Your task to perform on an android device: delete location history Image 0: 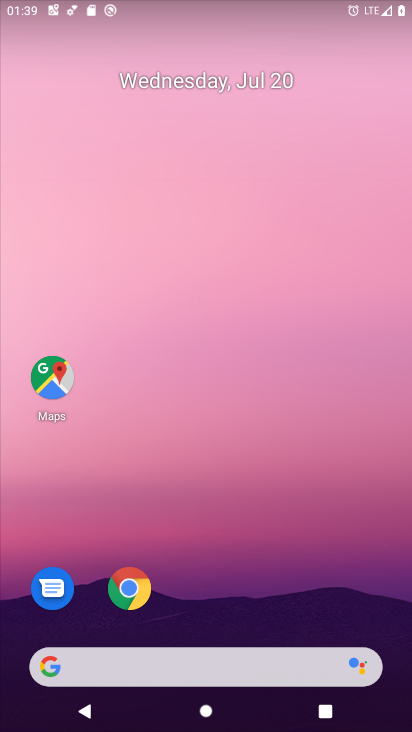
Step 0: drag from (286, 564) to (314, 205)
Your task to perform on an android device: delete location history Image 1: 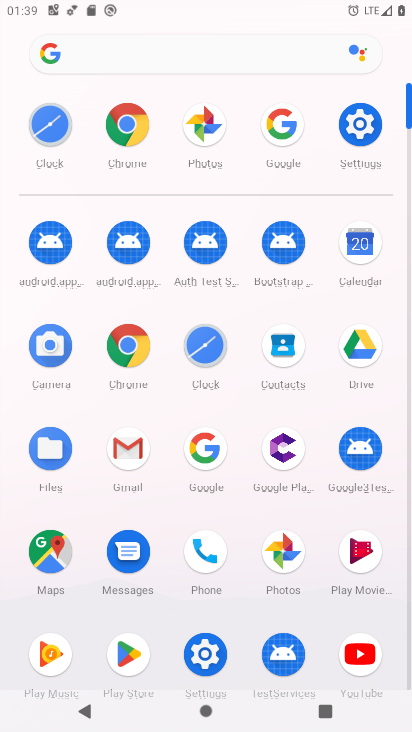
Step 1: click (45, 560)
Your task to perform on an android device: delete location history Image 2: 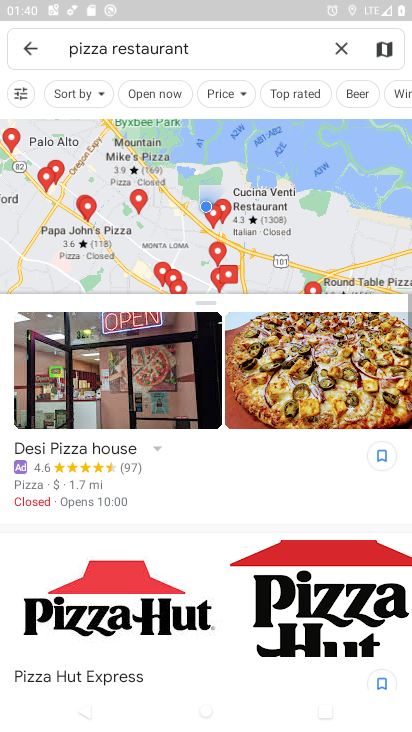
Step 2: click (332, 41)
Your task to perform on an android device: delete location history Image 3: 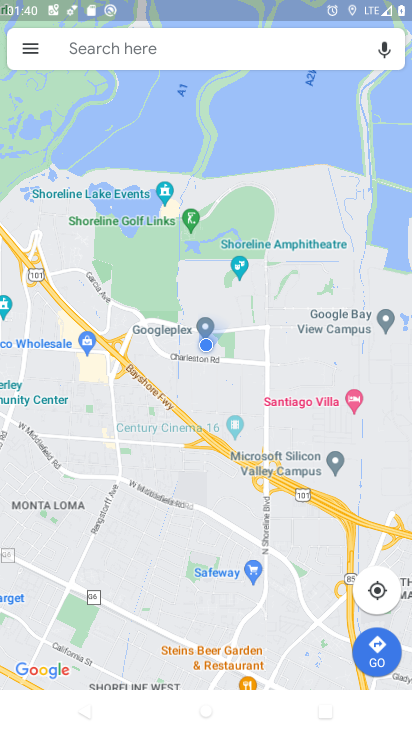
Step 3: click (22, 54)
Your task to perform on an android device: delete location history Image 4: 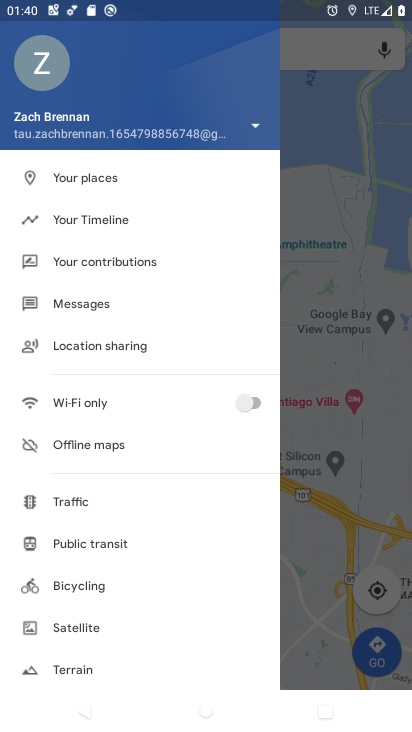
Step 4: drag from (180, 607) to (184, 295)
Your task to perform on an android device: delete location history Image 5: 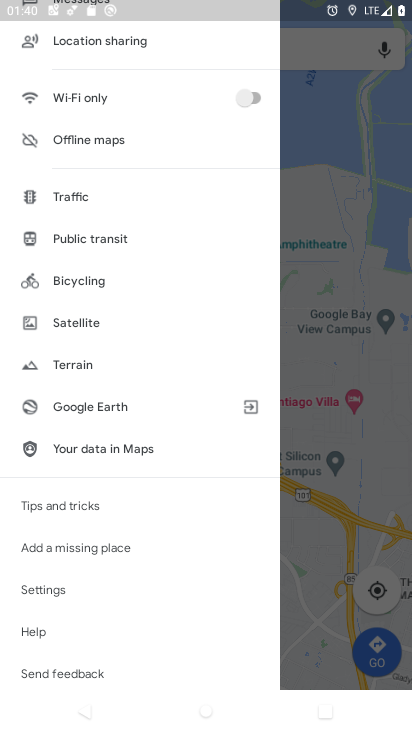
Step 5: drag from (101, 100) to (98, 578)
Your task to perform on an android device: delete location history Image 6: 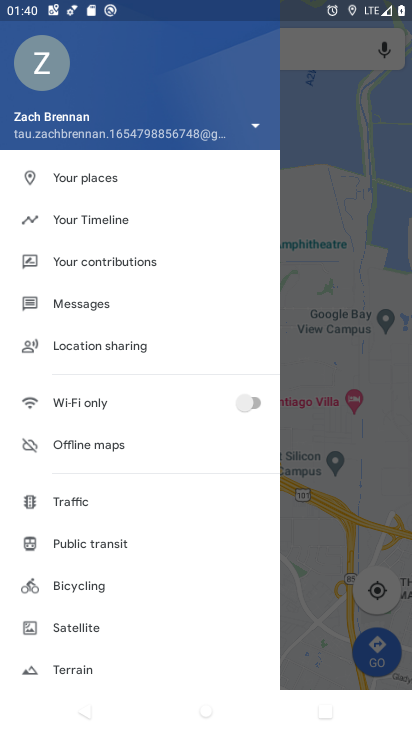
Step 6: click (76, 220)
Your task to perform on an android device: delete location history Image 7: 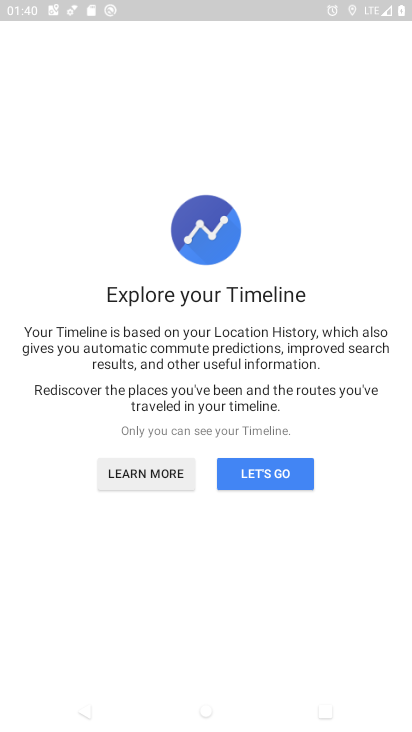
Step 7: click (267, 476)
Your task to perform on an android device: delete location history Image 8: 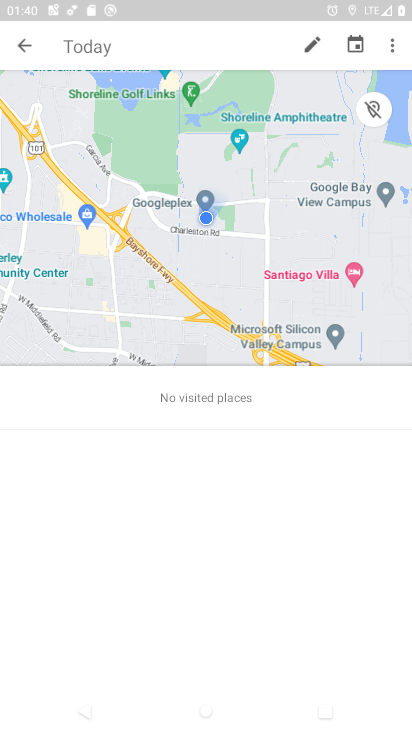
Step 8: click (391, 34)
Your task to perform on an android device: delete location history Image 9: 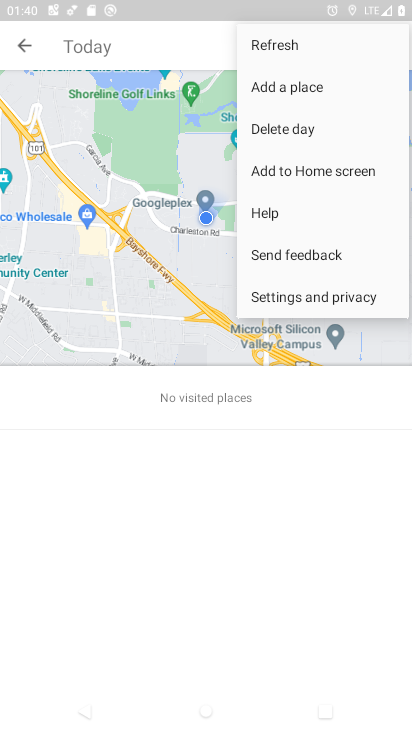
Step 9: click (317, 302)
Your task to perform on an android device: delete location history Image 10: 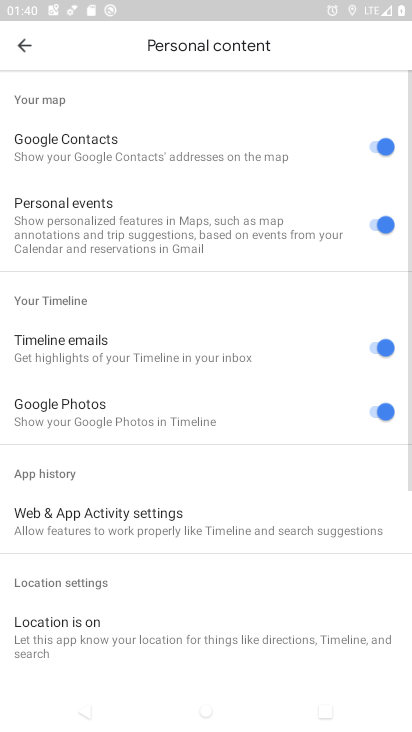
Step 10: drag from (163, 503) to (182, 227)
Your task to perform on an android device: delete location history Image 11: 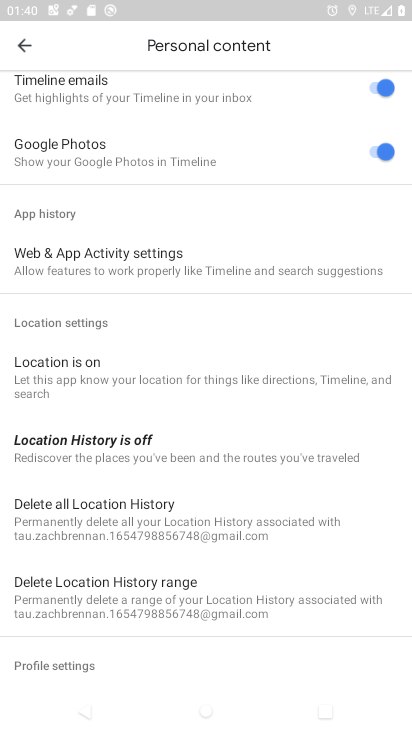
Step 11: click (174, 511)
Your task to perform on an android device: delete location history Image 12: 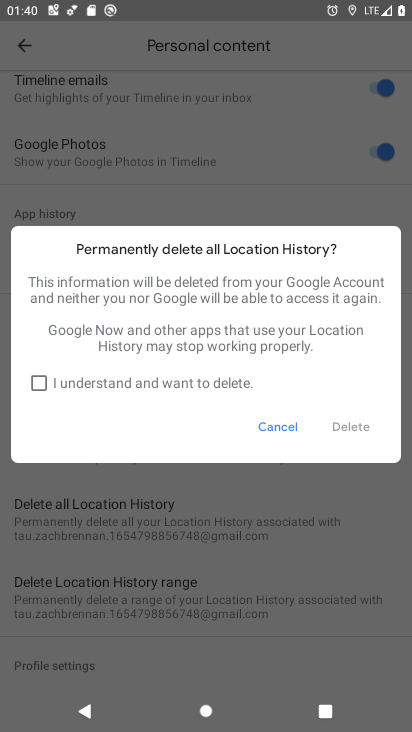
Step 12: click (51, 378)
Your task to perform on an android device: delete location history Image 13: 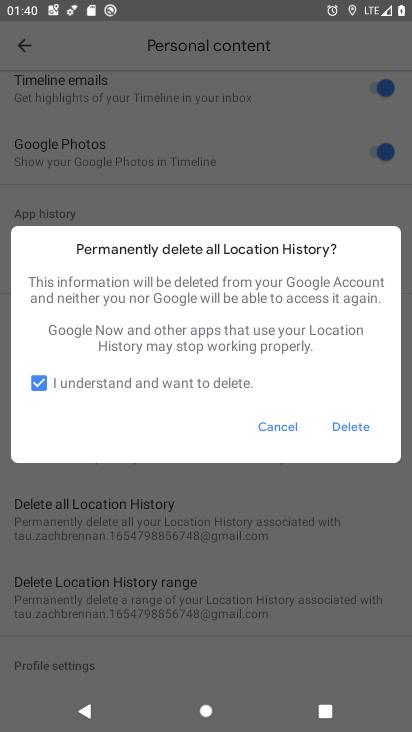
Step 13: click (365, 441)
Your task to perform on an android device: delete location history Image 14: 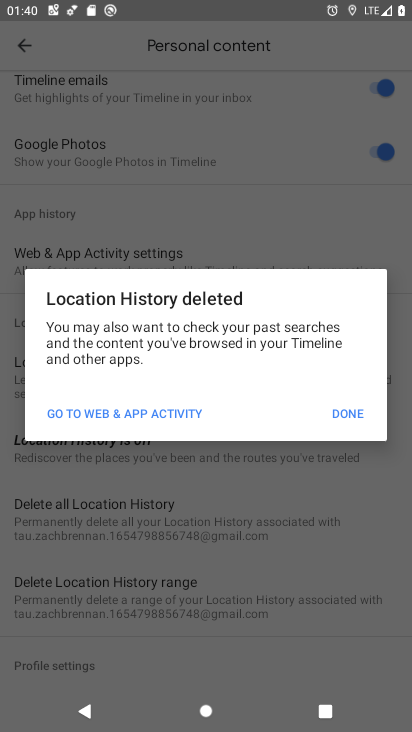
Step 14: click (347, 401)
Your task to perform on an android device: delete location history Image 15: 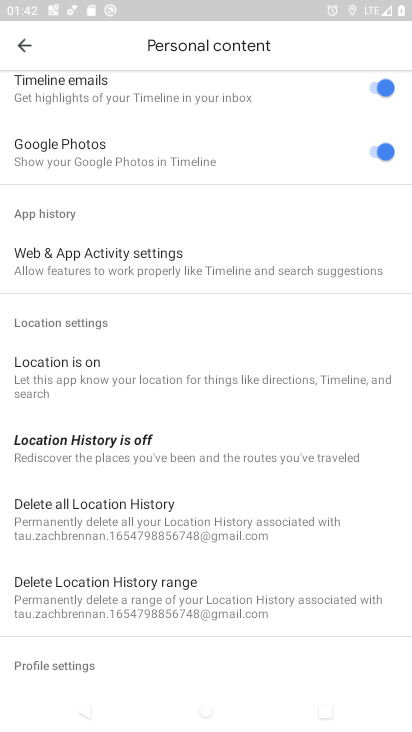
Step 15: click (96, 501)
Your task to perform on an android device: delete location history Image 16: 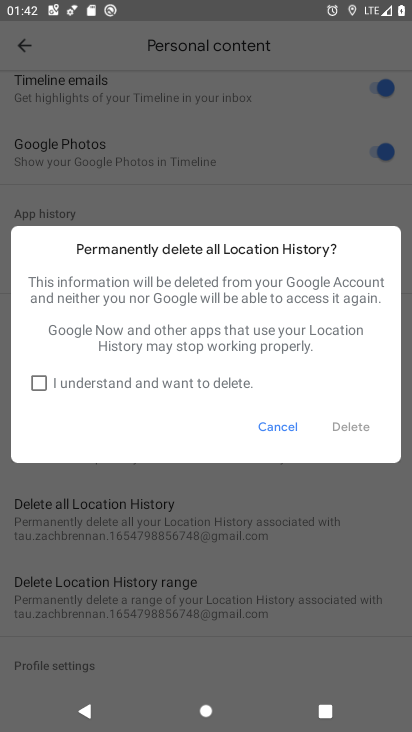
Step 16: click (76, 383)
Your task to perform on an android device: delete location history Image 17: 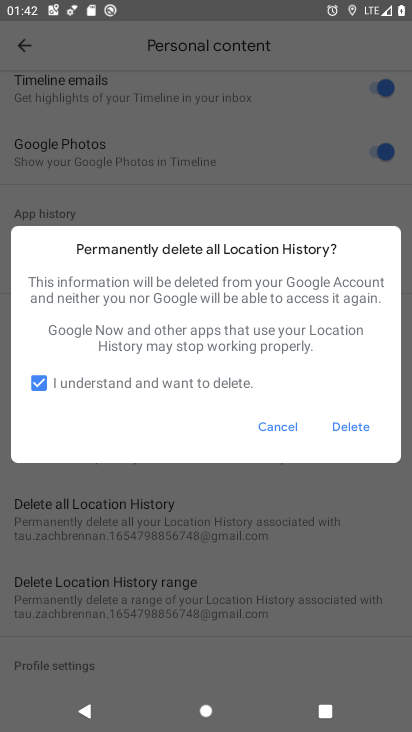
Step 17: click (365, 421)
Your task to perform on an android device: delete location history Image 18: 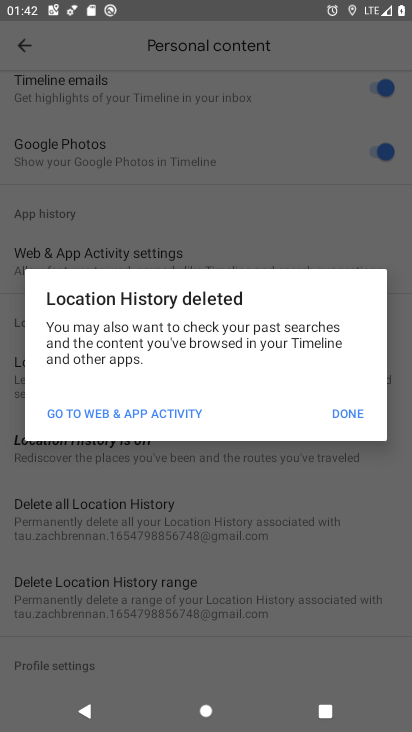
Step 18: click (351, 412)
Your task to perform on an android device: delete location history Image 19: 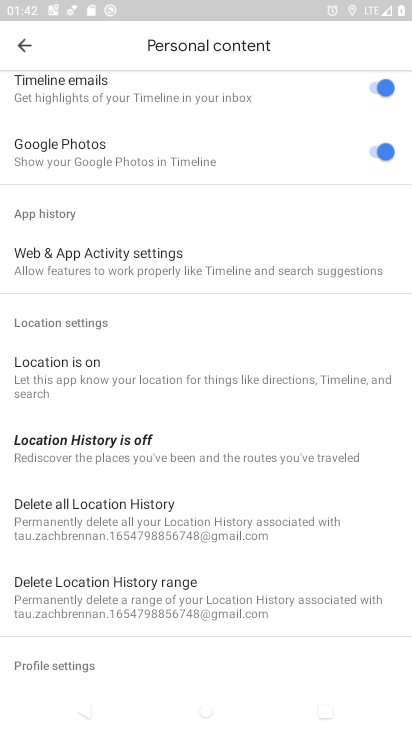
Step 19: task complete